Your task to perform on an android device: Open calendar and show me the second week of next month Image 0: 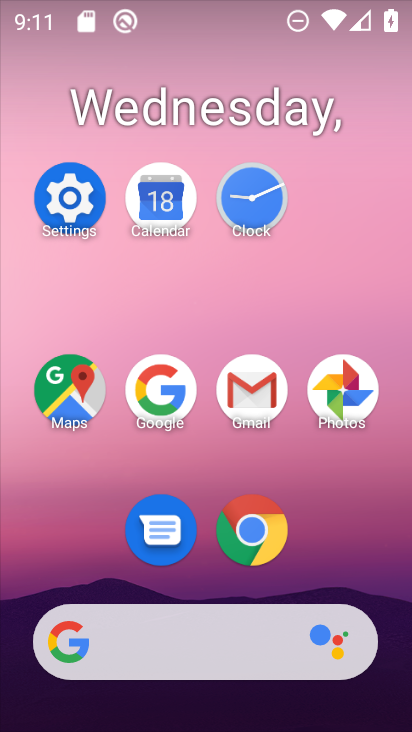
Step 0: click (157, 192)
Your task to perform on an android device: Open calendar and show me the second week of next month Image 1: 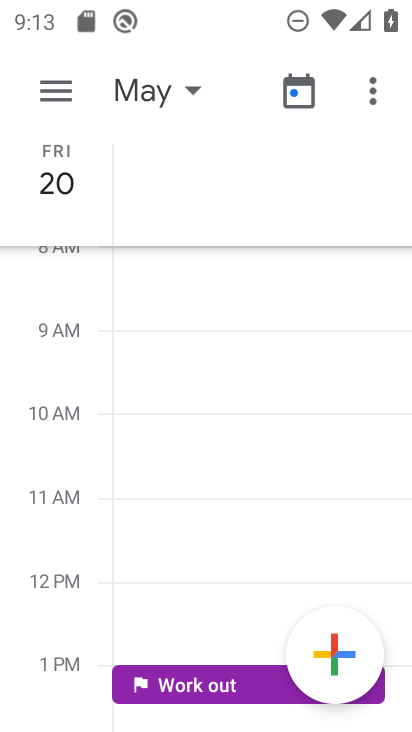
Step 1: click (153, 98)
Your task to perform on an android device: Open calendar and show me the second week of next month Image 2: 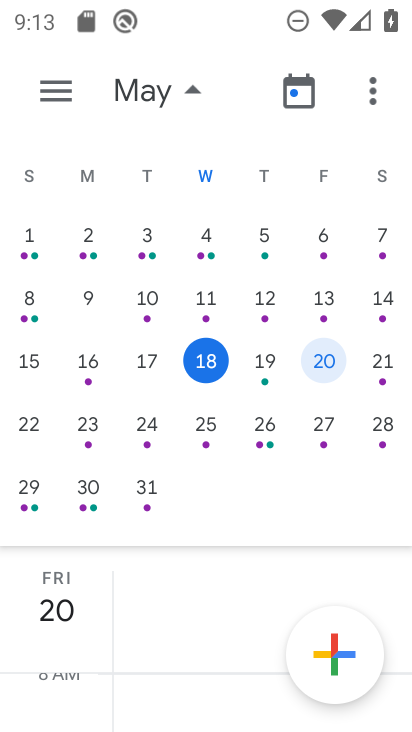
Step 2: drag from (382, 292) to (10, 179)
Your task to perform on an android device: Open calendar and show me the second week of next month Image 3: 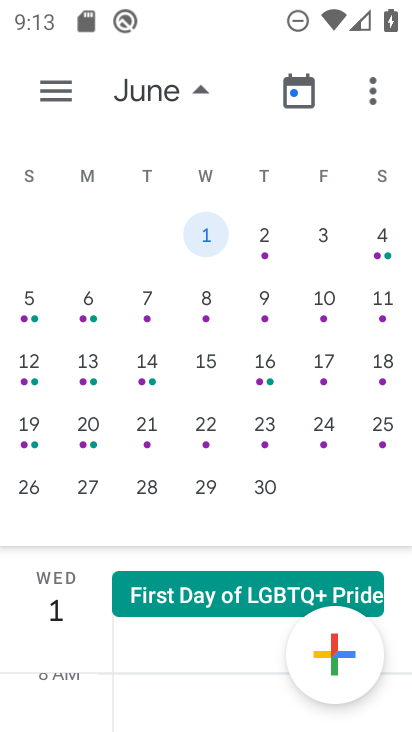
Step 3: click (51, 97)
Your task to perform on an android device: Open calendar and show me the second week of next month Image 4: 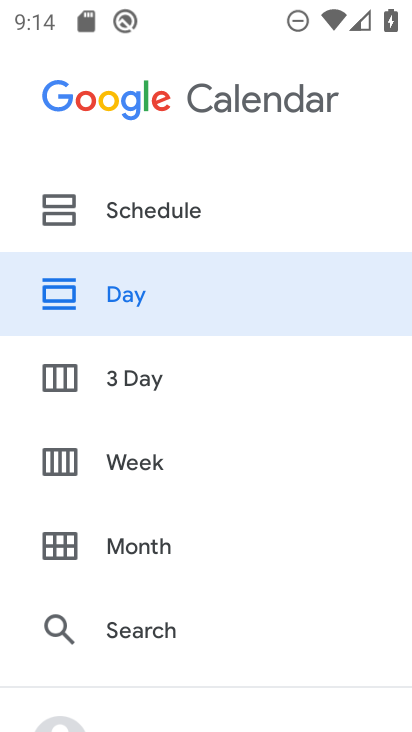
Step 4: click (151, 464)
Your task to perform on an android device: Open calendar and show me the second week of next month Image 5: 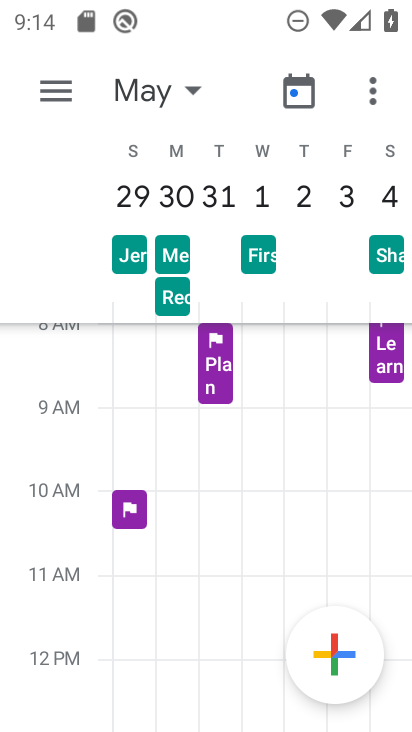
Step 5: task complete